Your task to perform on an android device: clear all cookies in the chrome app Image 0: 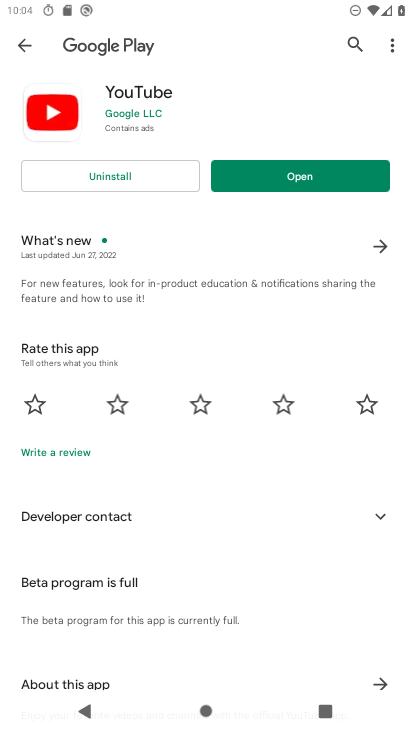
Step 0: press home button
Your task to perform on an android device: clear all cookies in the chrome app Image 1: 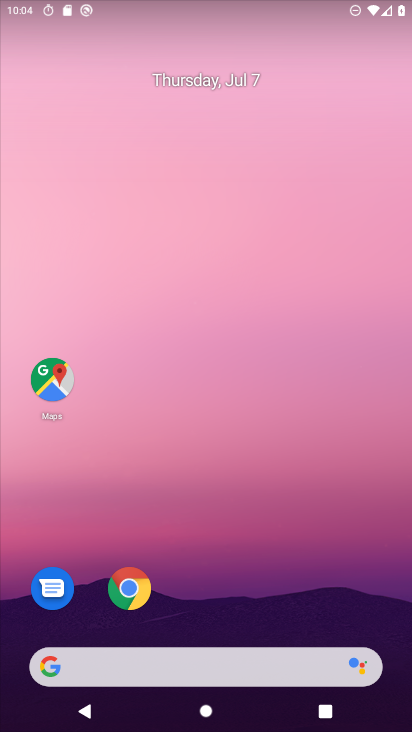
Step 1: click (115, 585)
Your task to perform on an android device: clear all cookies in the chrome app Image 2: 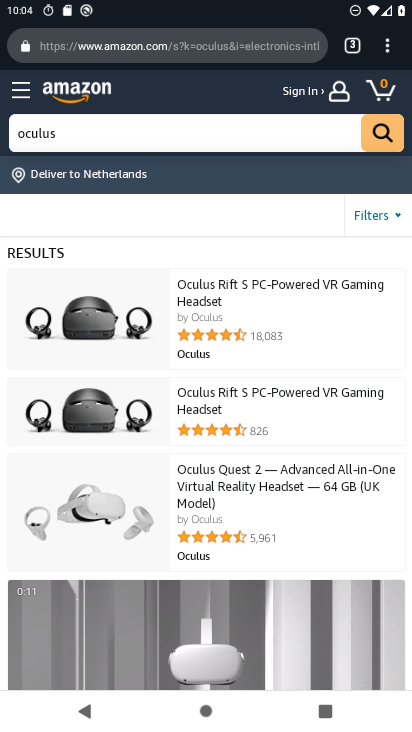
Step 2: click (385, 37)
Your task to perform on an android device: clear all cookies in the chrome app Image 3: 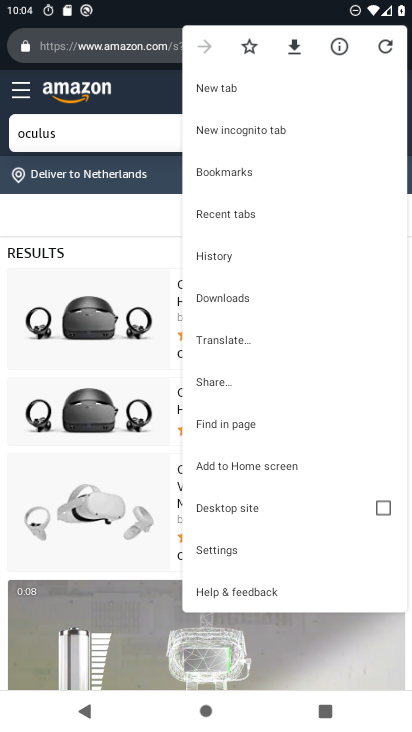
Step 3: click (242, 538)
Your task to perform on an android device: clear all cookies in the chrome app Image 4: 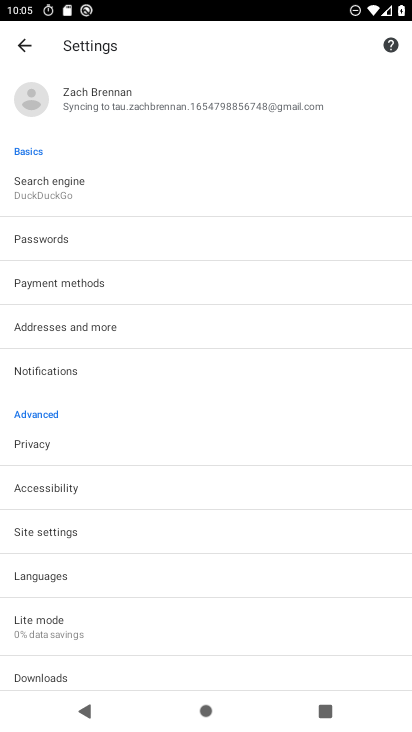
Step 4: drag from (84, 626) to (237, 58)
Your task to perform on an android device: clear all cookies in the chrome app Image 5: 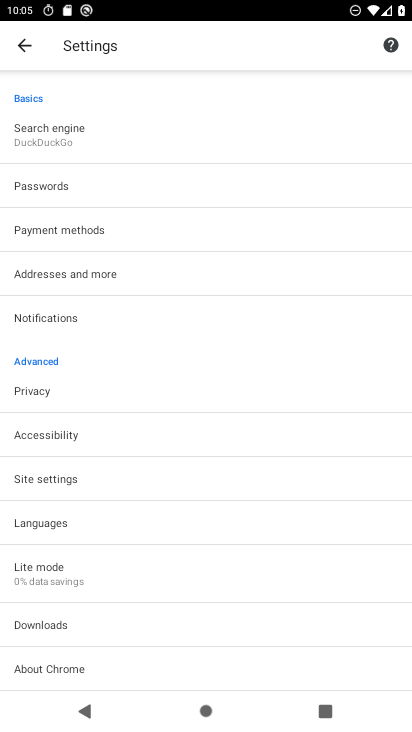
Step 5: click (24, 54)
Your task to perform on an android device: clear all cookies in the chrome app Image 6: 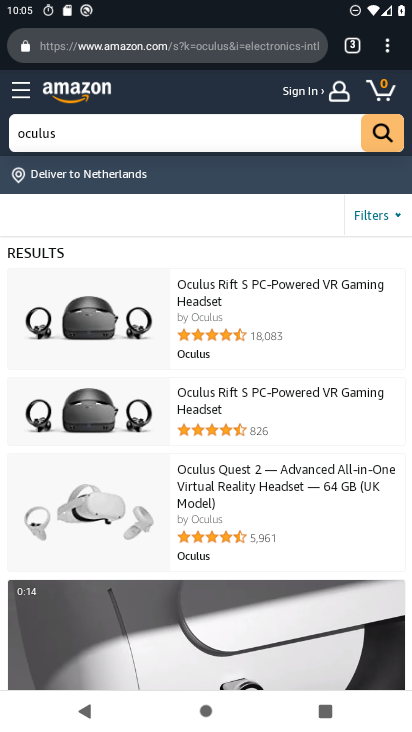
Step 6: click (383, 39)
Your task to perform on an android device: clear all cookies in the chrome app Image 7: 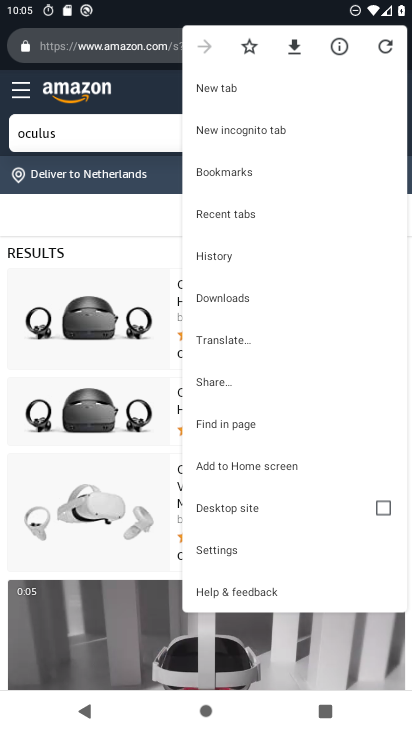
Step 7: click (228, 258)
Your task to perform on an android device: clear all cookies in the chrome app Image 8: 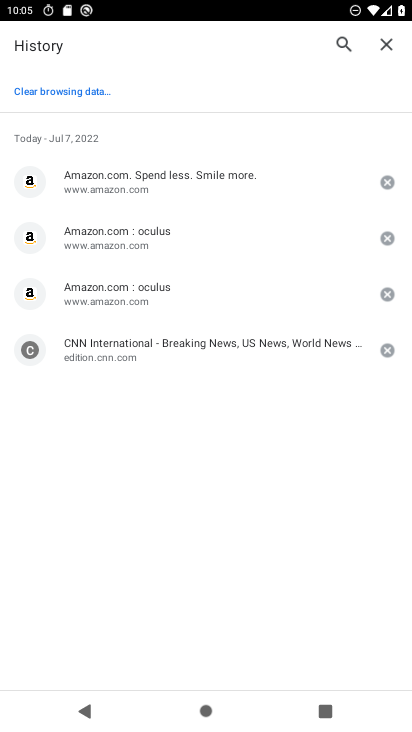
Step 8: click (105, 88)
Your task to perform on an android device: clear all cookies in the chrome app Image 9: 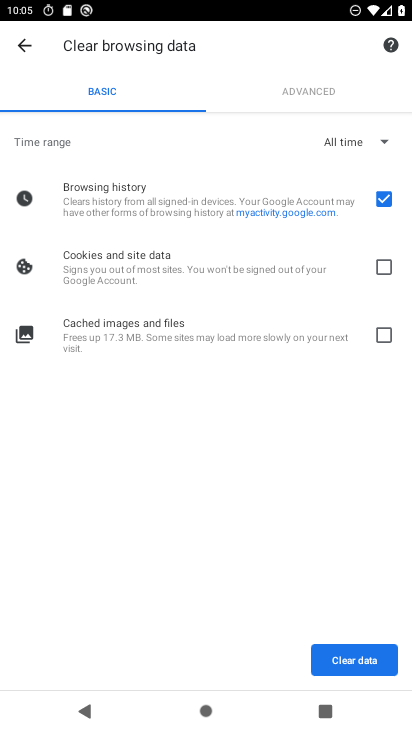
Step 9: click (375, 201)
Your task to perform on an android device: clear all cookies in the chrome app Image 10: 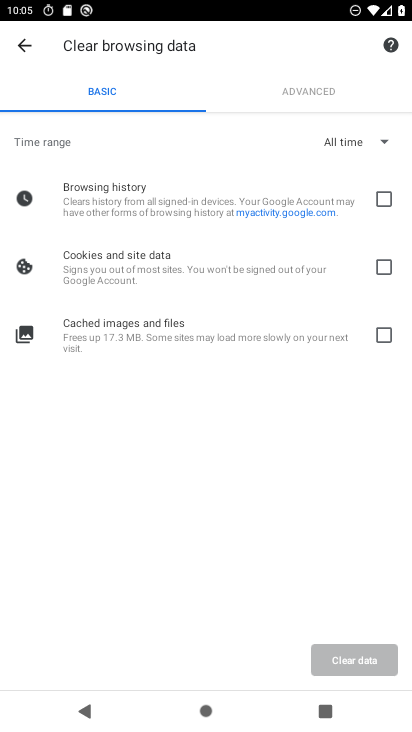
Step 10: click (385, 268)
Your task to perform on an android device: clear all cookies in the chrome app Image 11: 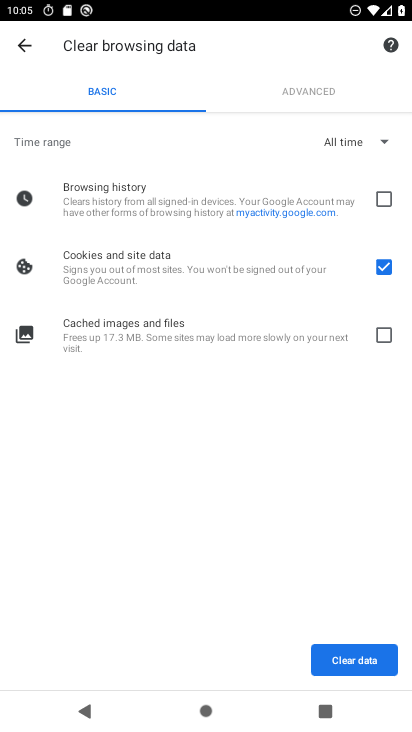
Step 11: click (351, 665)
Your task to perform on an android device: clear all cookies in the chrome app Image 12: 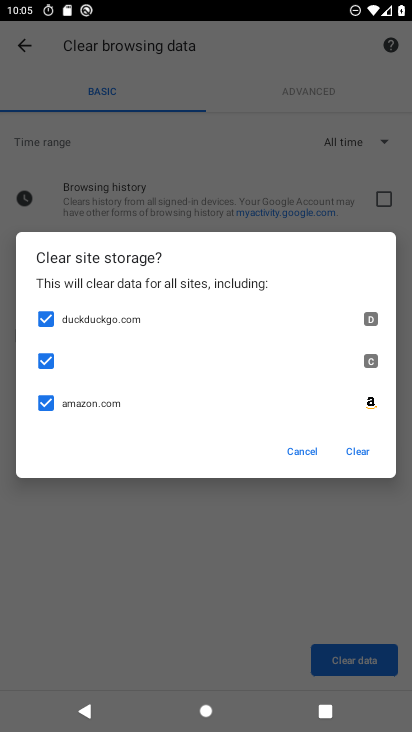
Step 12: click (361, 446)
Your task to perform on an android device: clear all cookies in the chrome app Image 13: 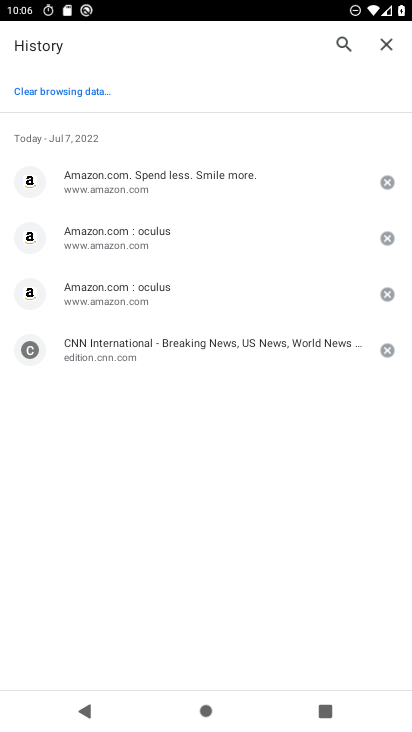
Step 13: task complete